Your task to perform on an android device: Open settings Image 0: 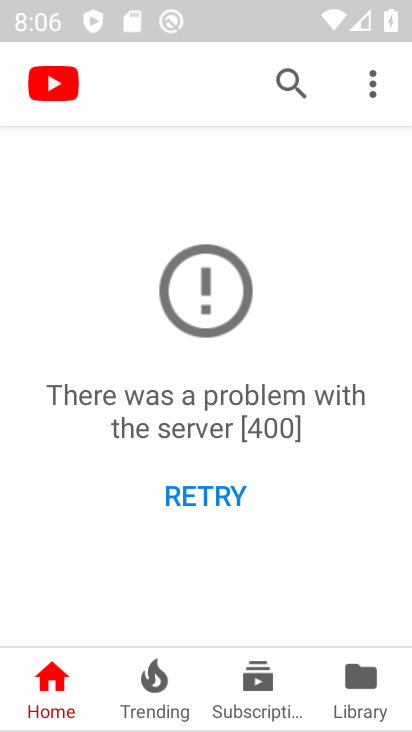
Step 0: press home button
Your task to perform on an android device: Open settings Image 1: 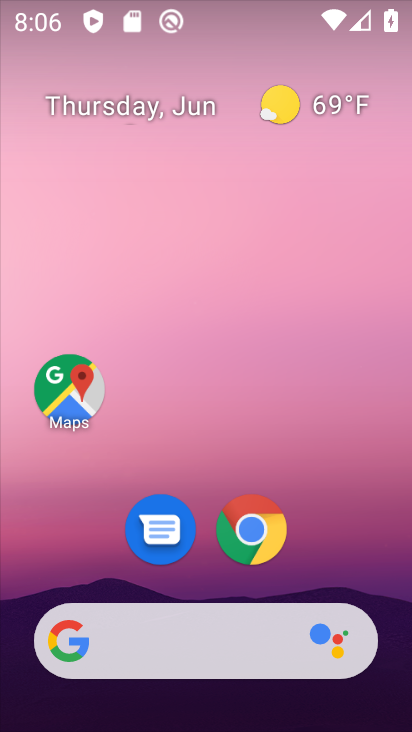
Step 1: drag from (212, 619) to (148, 9)
Your task to perform on an android device: Open settings Image 2: 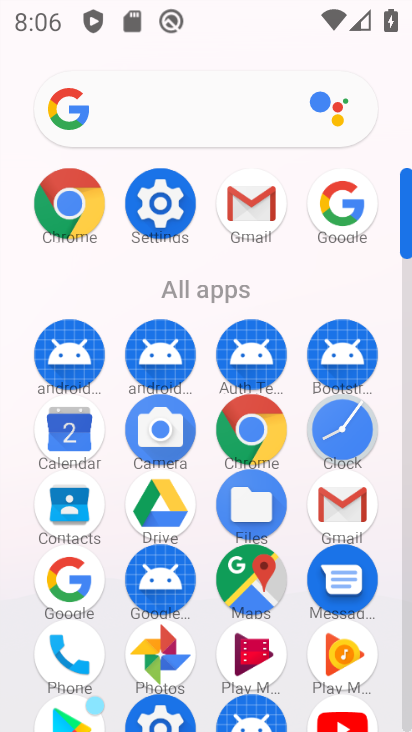
Step 2: click (164, 207)
Your task to perform on an android device: Open settings Image 3: 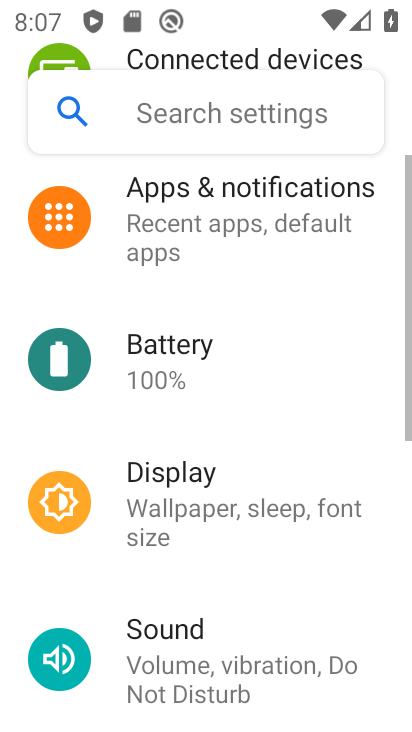
Step 3: task complete